Your task to perform on an android device: Open eBay Image 0: 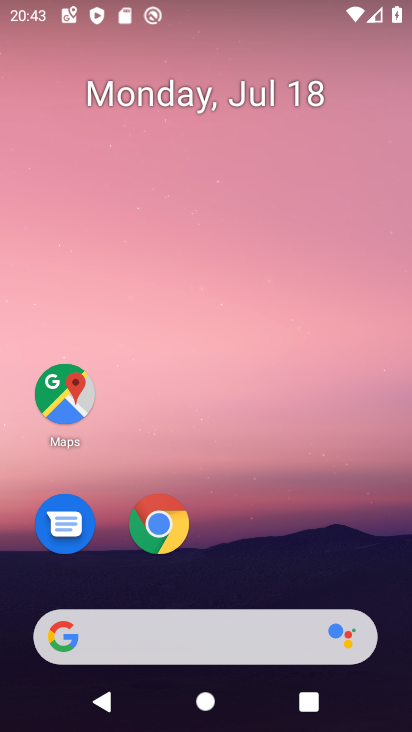
Step 0: click (241, 634)
Your task to perform on an android device: Open eBay Image 1: 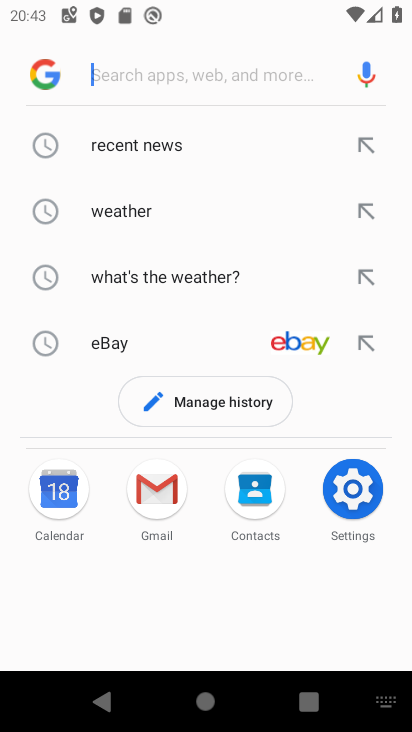
Step 1: click (294, 327)
Your task to perform on an android device: Open eBay Image 2: 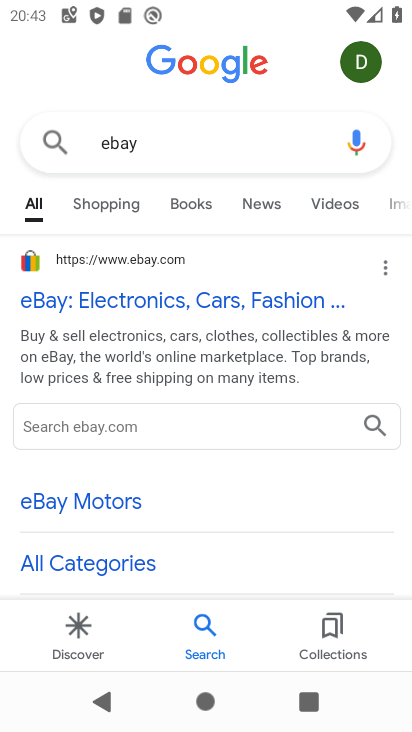
Step 2: click (43, 302)
Your task to perform on an android device: Open eBay Image 3: 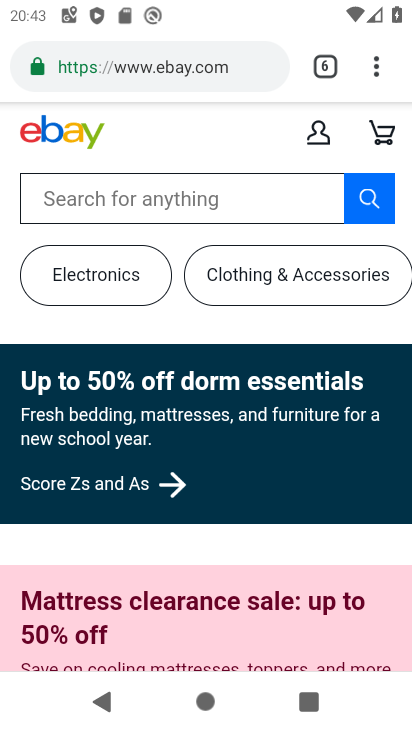
Step 3: task complete